Your task to perform on an android device: check out phone information Image 0: 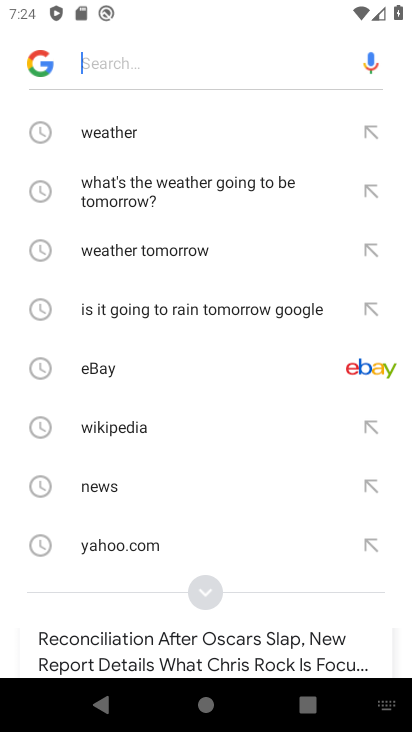
Step 0: press home button
Your task to perform on an android device: check out phone information Image 1: 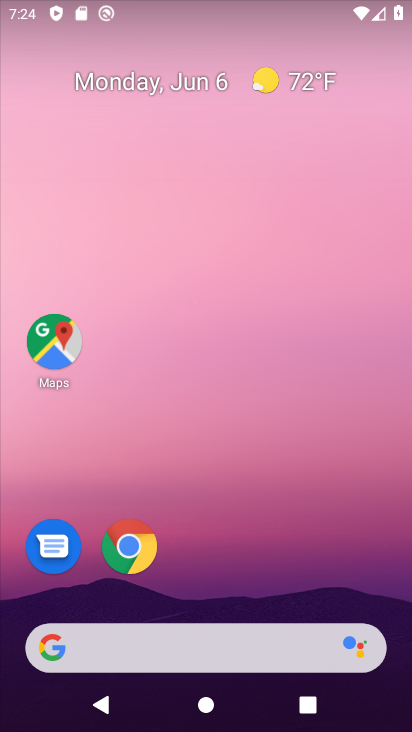
Step 1: drag from (190, 587) to (188, 250)
Your task to perform on an android device: check out phone information Image 2: 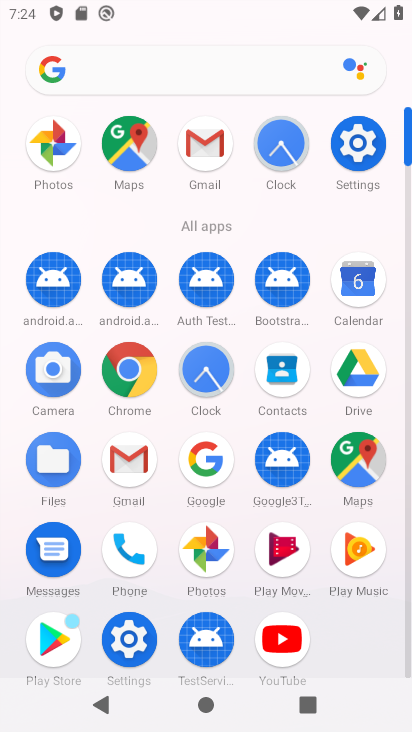
Step 2: click (349, 146)
Your task to perform on an android device: check out phone information Image 3: 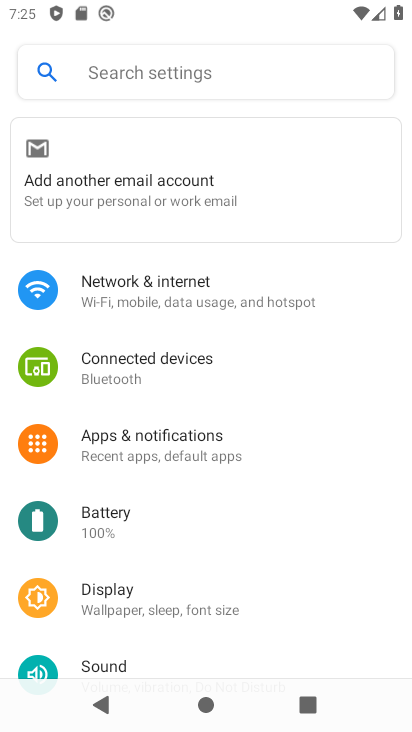
Step 3: drag from (158, 634) to (148, 266)
Your task to perform on an android device: check out phone information Image 4: 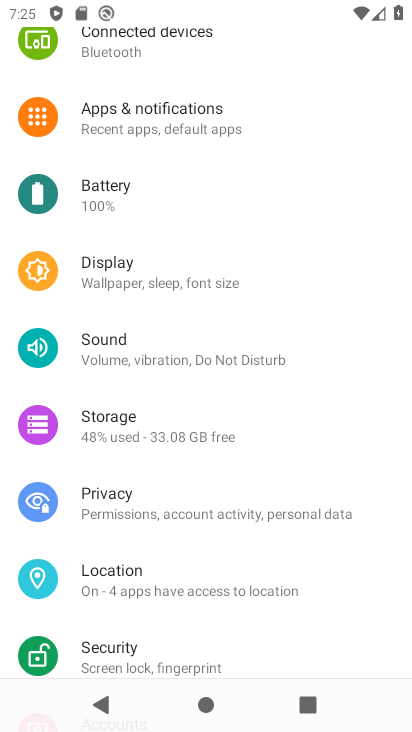
Step 4: drag from (160, 626) to (163, 203)
Your task to perform on an android device: check out phone information Image 5: 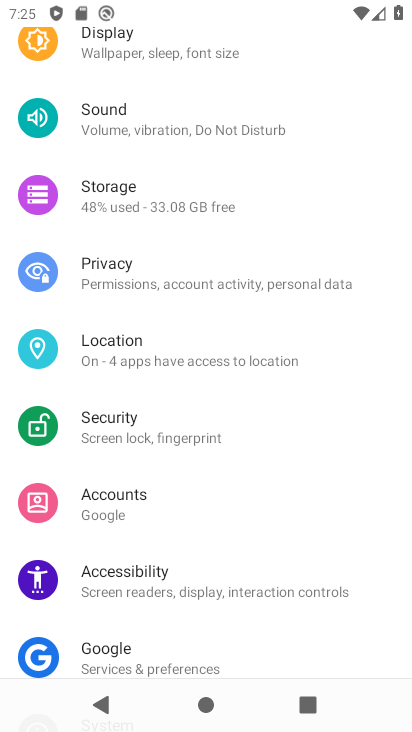
Step 5: drag from (187, 629) to (188, 110)
Your task to perform on an android device: check out phone information Image 6: 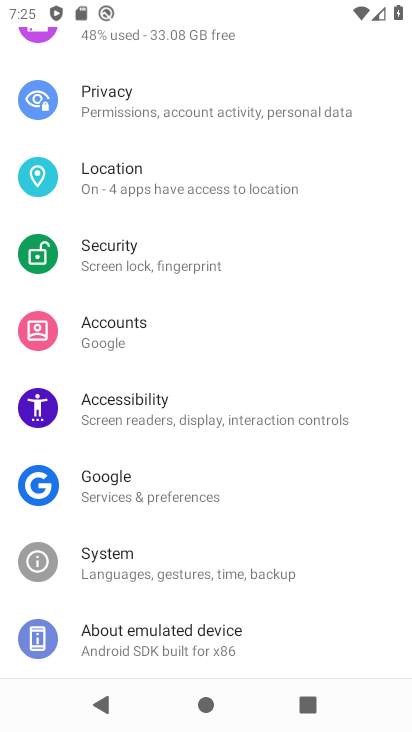
Step 6: click (157, 635)
Your task to perform on an android device: check out phone information Image 7: 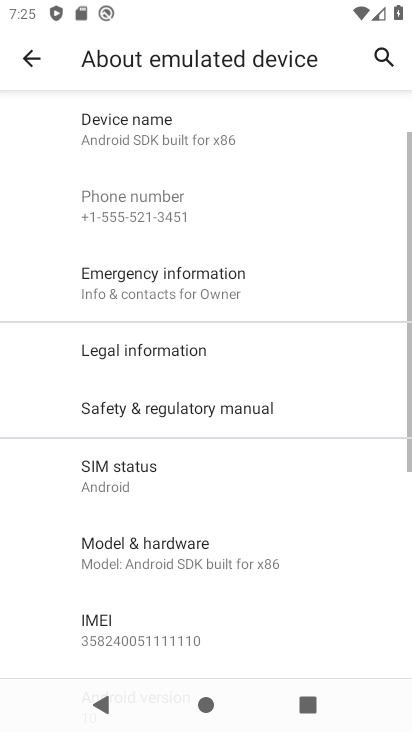
Step 7: task complete